Your task to perform on an android device: add a label to a message in the gmail app Image 0: 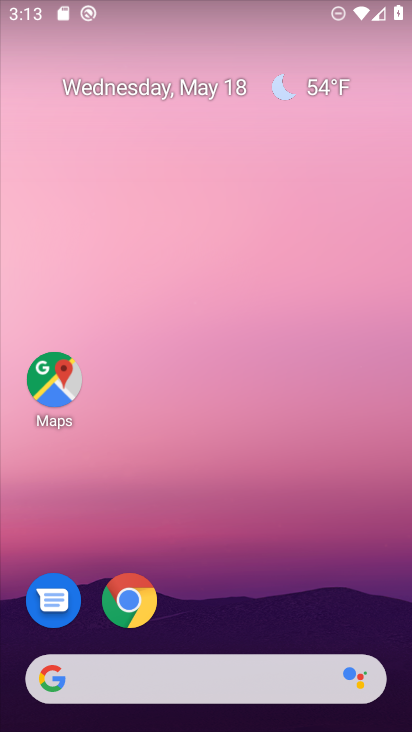
Step 0: drag from (257, 631) to (363, 155)
Your task to perform on an android device: add a label to a message in the gmail app Image 1: 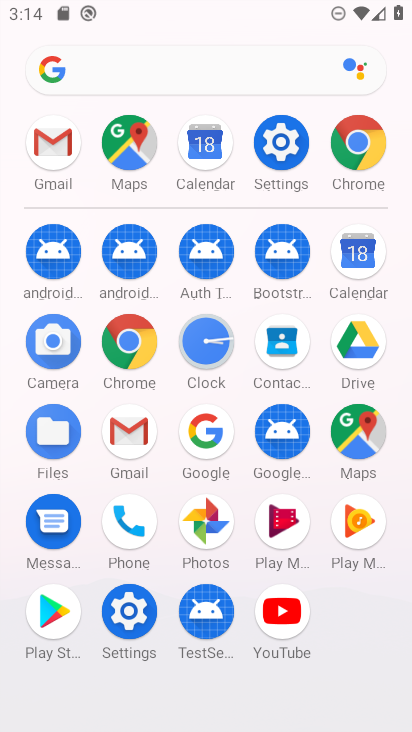
Step 1: click (134, 446)
Your task to perform on an android device: add a label to a message in the gmail app Image 2: 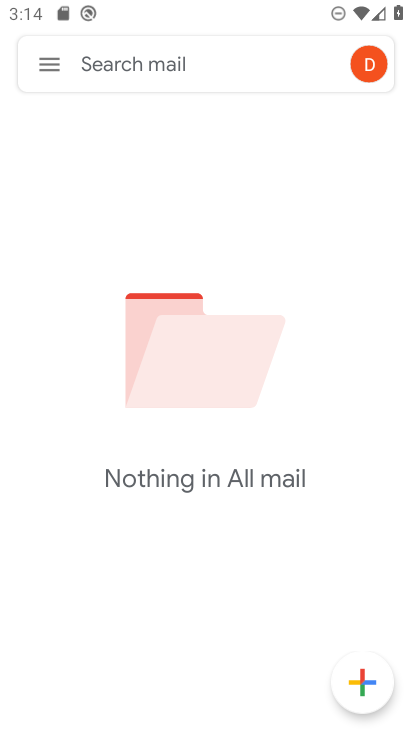
Step 2: task complete